Your task to perform on an android device: Go to Yahoo.com Image 0: 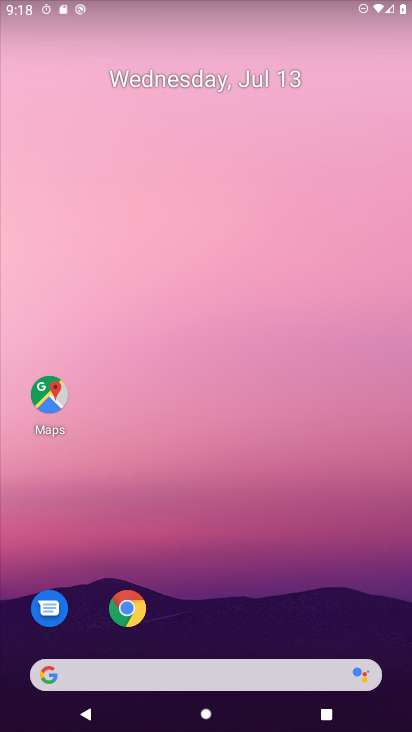
Step 0: drag from (256, 691) to (221, 345)
Your task to perform on an android device: Go to Yahoo.com Image 1: 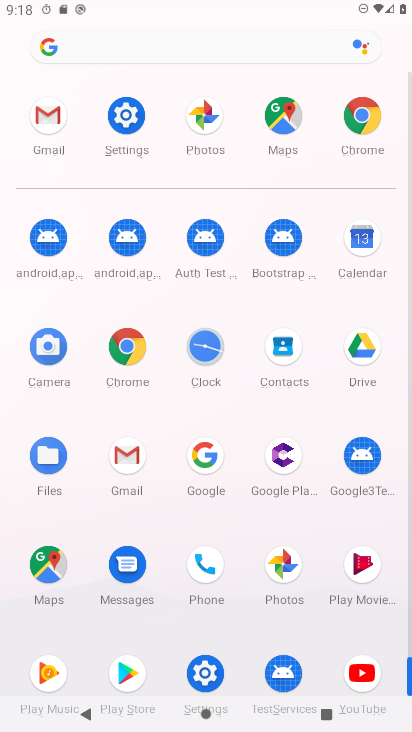
Step 1: click (129, 322)
Your task to perform on an android device: Go to Yahoo.com Image 2: 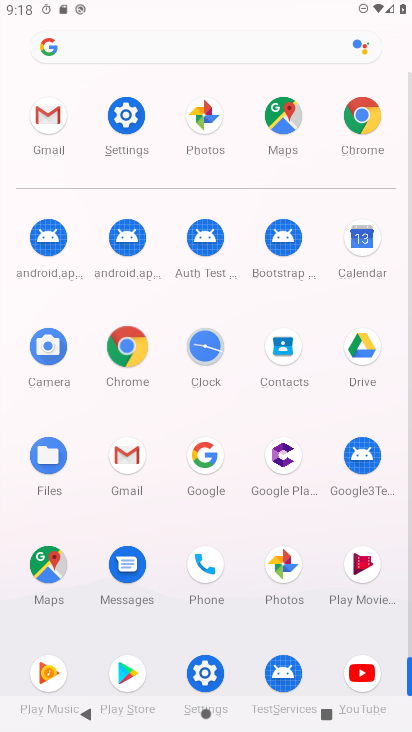
Step 2: click (126, 354)
Your task to perform on an android device: Go to Yahoo.com Image 3: 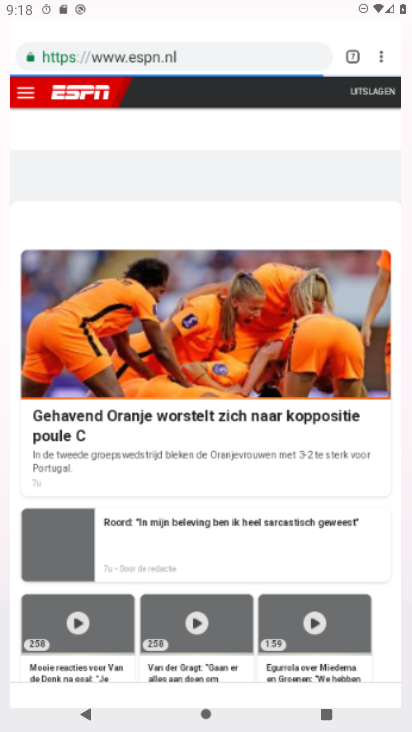
Step 3: click (126, 354)
Your task to perform on an android device: Go to Yahoo.com Image 4: 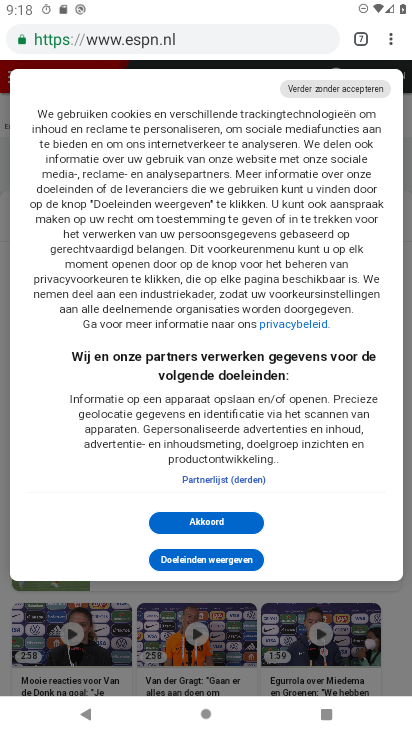
Step 4: press back button
Your task to perform on an android device: Go to Yahoo.com Image 5: 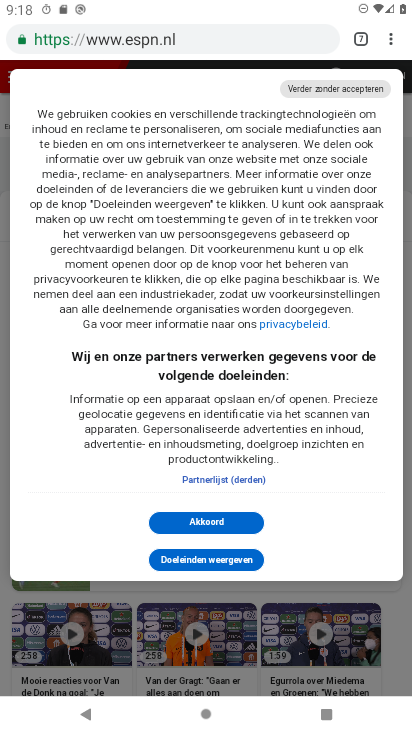
Step 5: press back button
Your task to perform on an android device: Go to Yahoo.com Image 6: 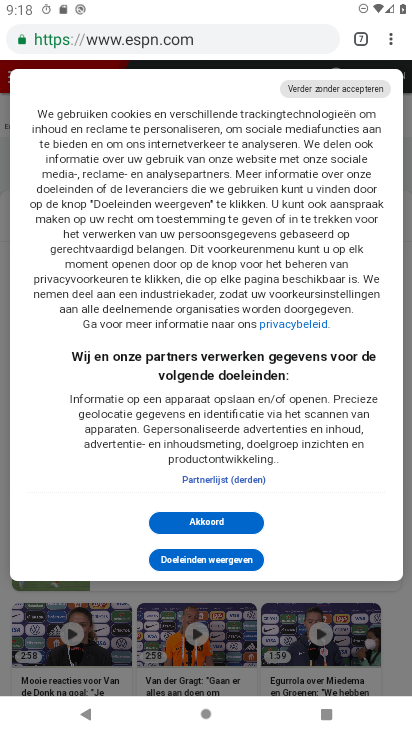
Step 6: press back button
Your task to perform on an android device: Go to Yahoo.com Image 7: 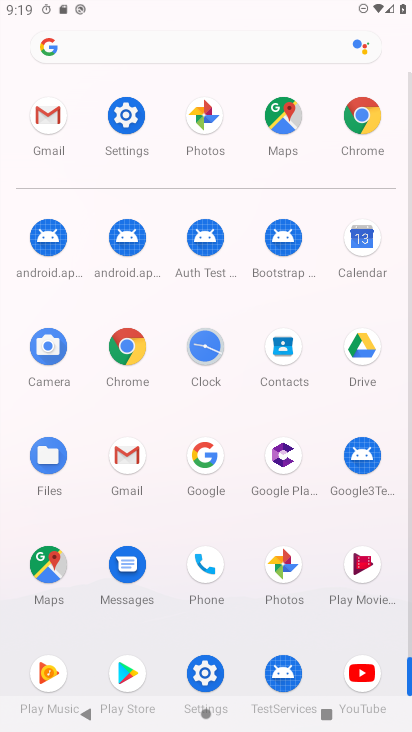
Step 7: click (354, 117)
Your task to perform on an android device: Go to Yahoo.com Image 8: 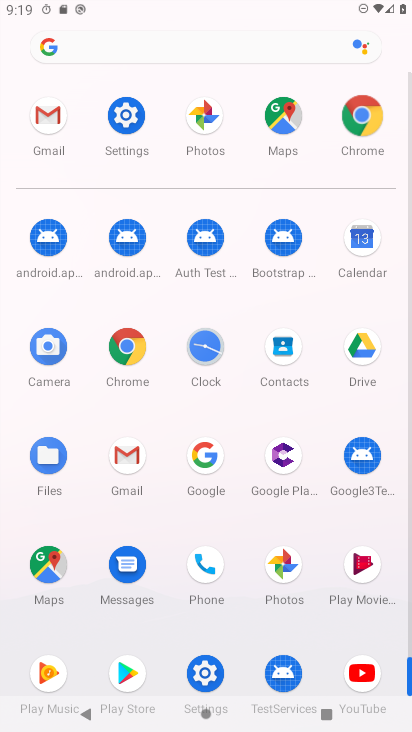
Step 8: click (353, 116)
Your task to perform on an android device: Go to Yahoo.com Image 9: 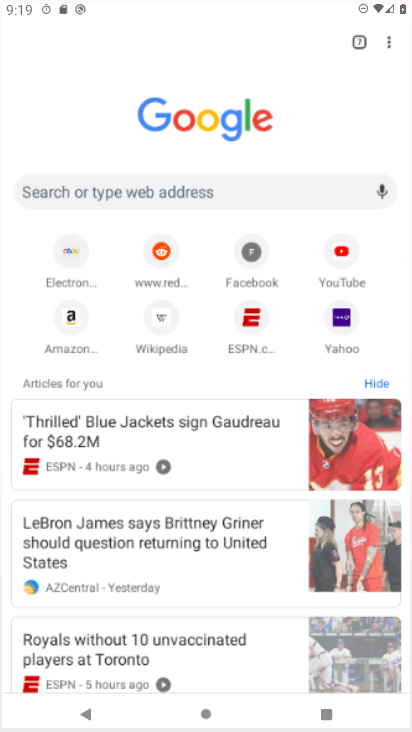
Step 9: click (356, 115)
Your task to perform on an android device: Go to Yahoo.com Image 10: 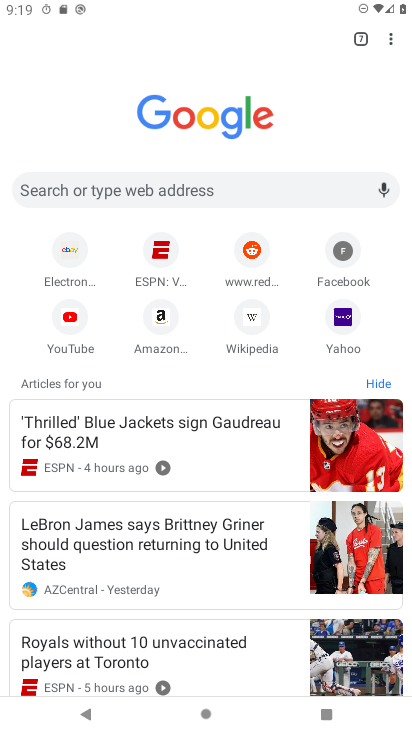
Step 10: click (343, 321)
Your task to perform on an android device: Go to Yahoo.com Image 11: 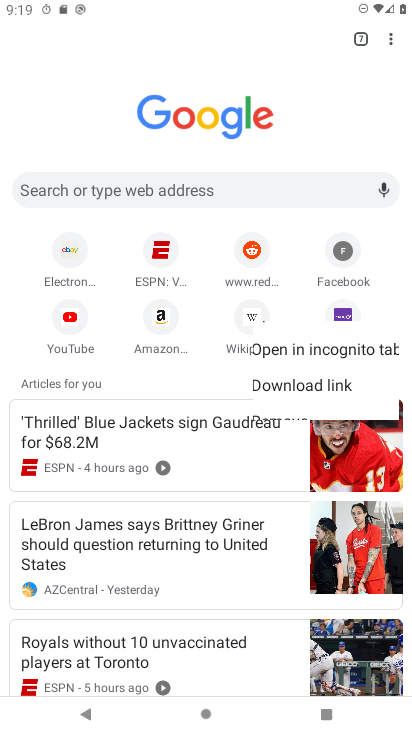
Step 11: click (349, 314)
Your task to perform on an android device: Go to Yahoo.com Image 12: 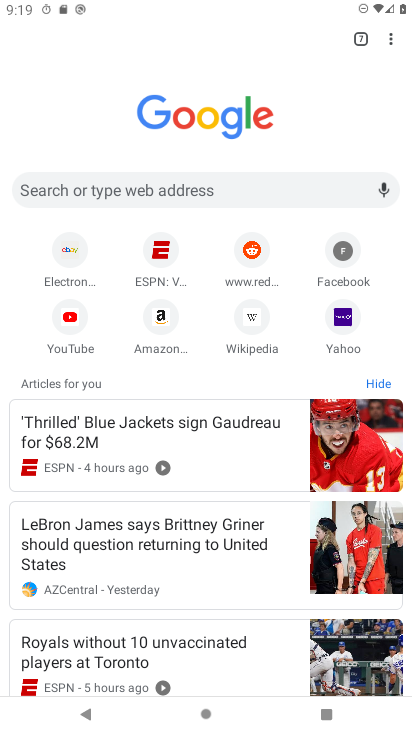
Step 12: click (344, 317)
Your task to perform on an android device: Go to Yahoo.com Image 13: 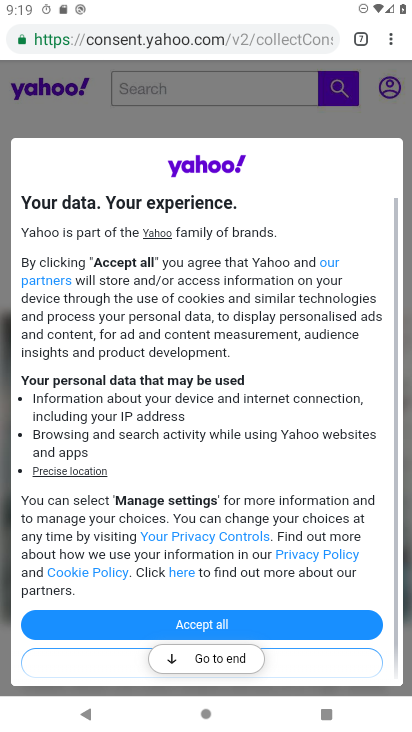
Step 13: task complete